Your task to perform on an android device: Open maps Image 0: 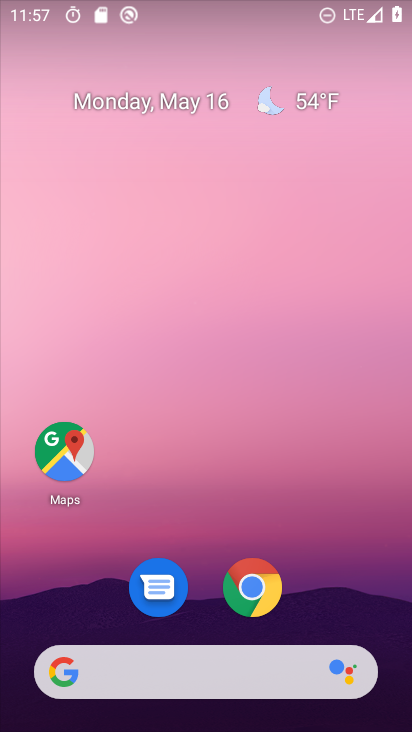
Step 0: drag from (206, 621) to (186, 154)
Your task to perform on an android device: Open maps Image 1: 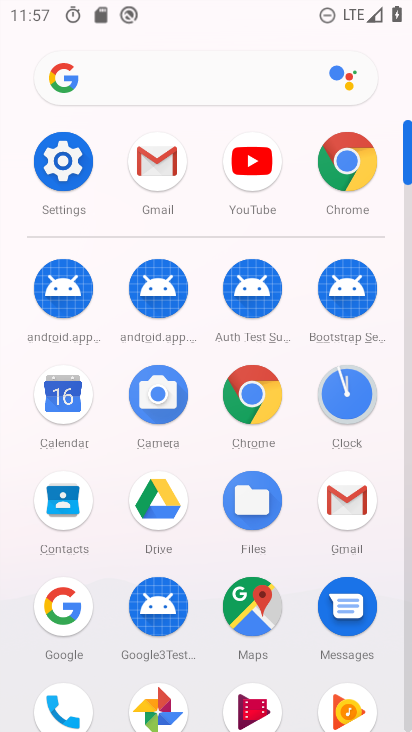
Step 1: drag from (221, 677) to (220, 146)
Your task to perform on an android device: Open maps Image 2: 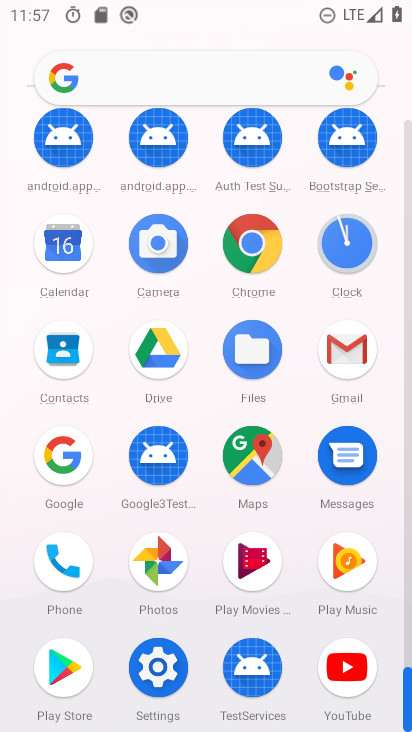
Step 2: click (257, 450)
Your task to perform on an android device: Open maps Image 3: 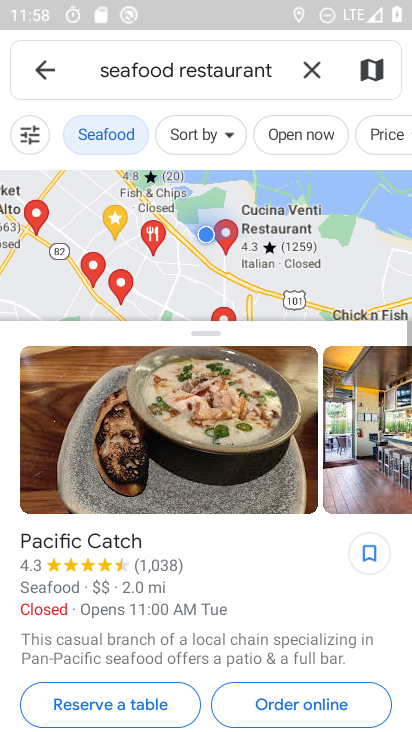
Step 3: task complete